Your task to perform on an android device: open app "DoorDash - Dasher" (install if not already installed) Image 0: 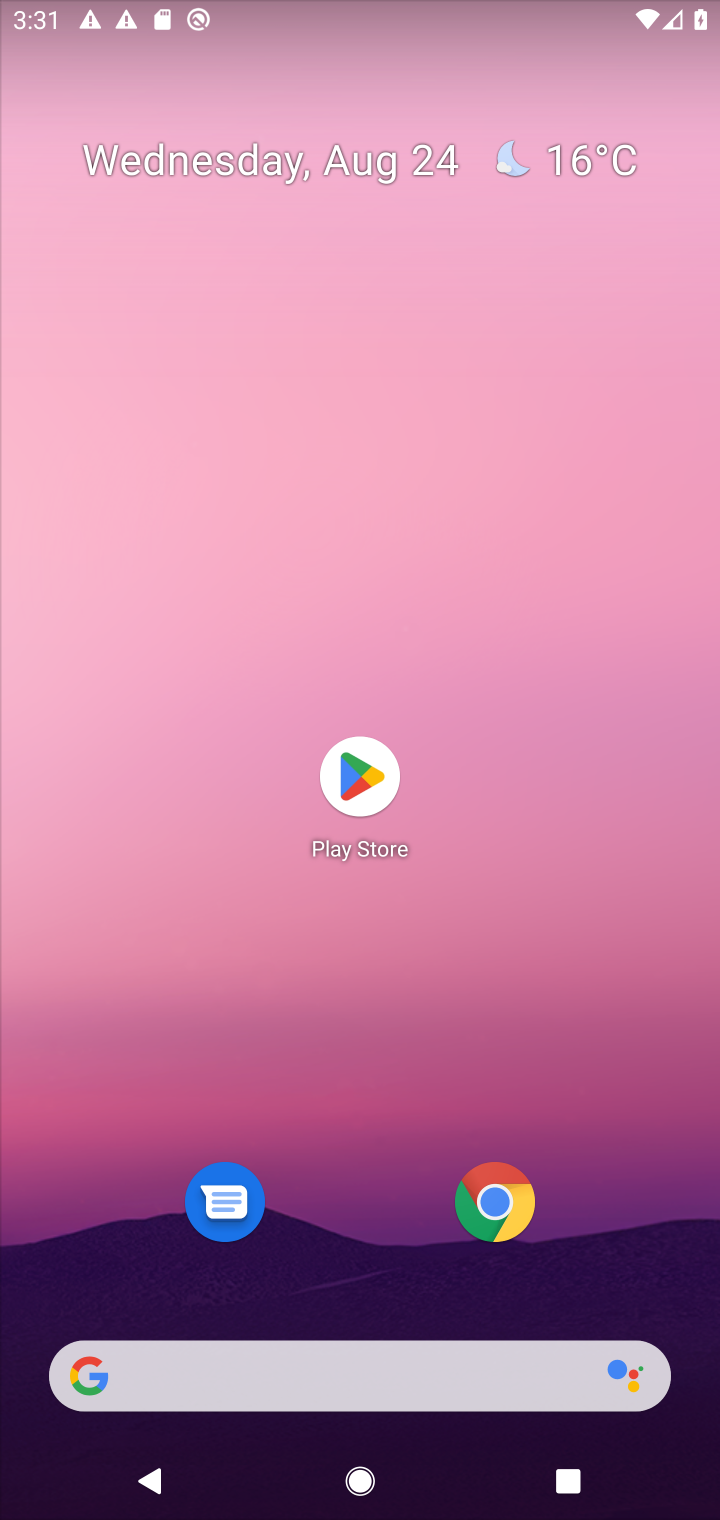
Step 0: click (358, 778)
Your task to perform on an android device: open app "DoorDash - Dasher" (install if not already installed) Image 1: 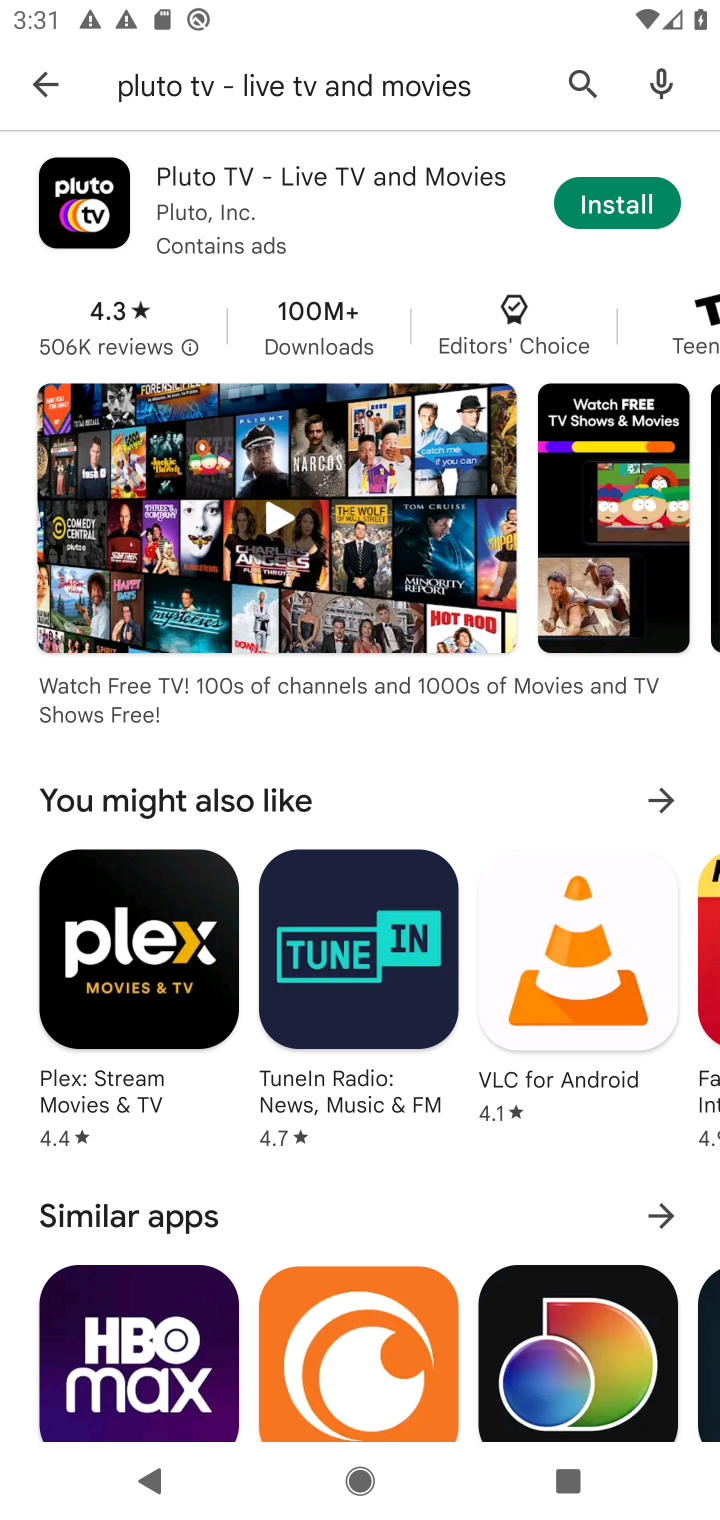
Step 1: click (579, 76)
Your task to perform on an android device: open app "DoorDash - Dasher" (install if not already installed) Image 2: 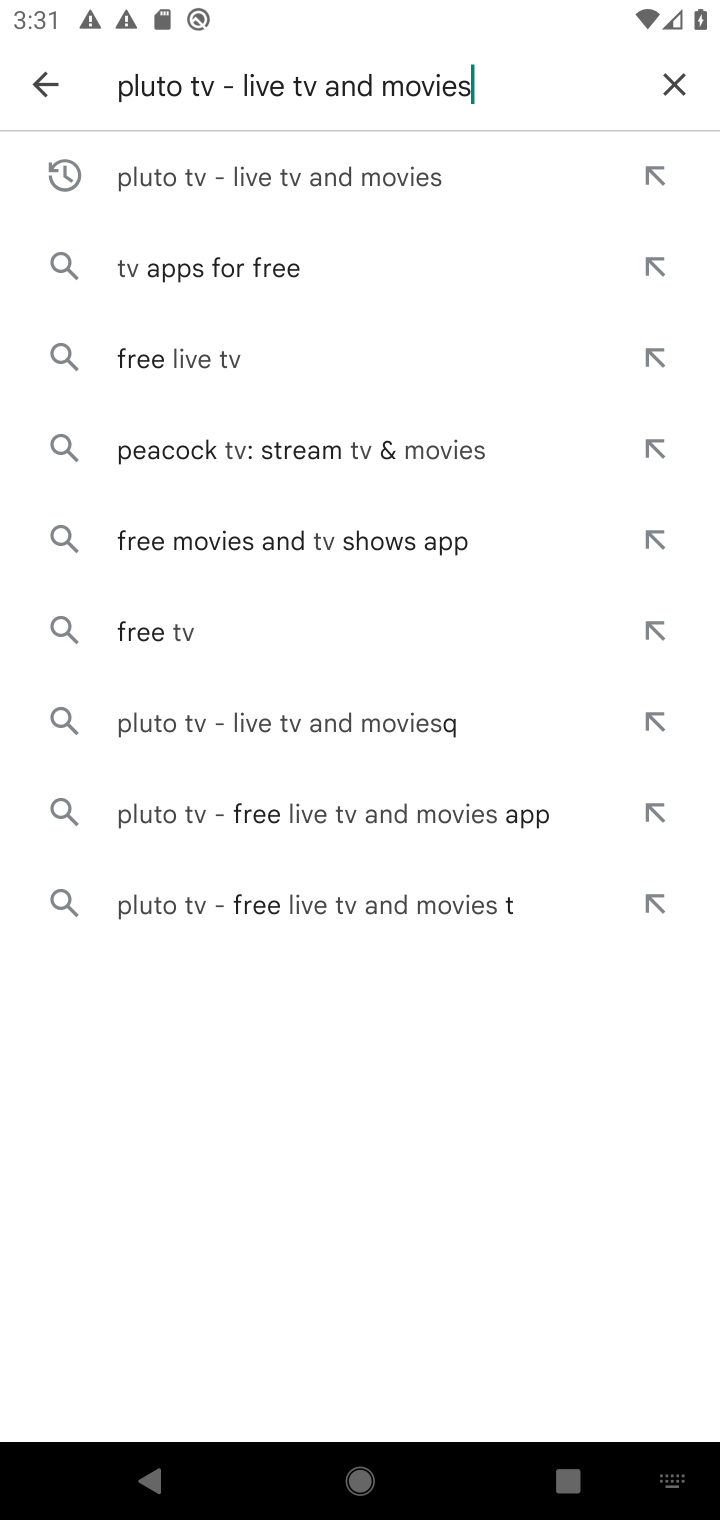
Step 2: click (671, 92)
Your task to perform on an android device: open app "DoorDash - Dasher" (install if not already installed) Image 3: 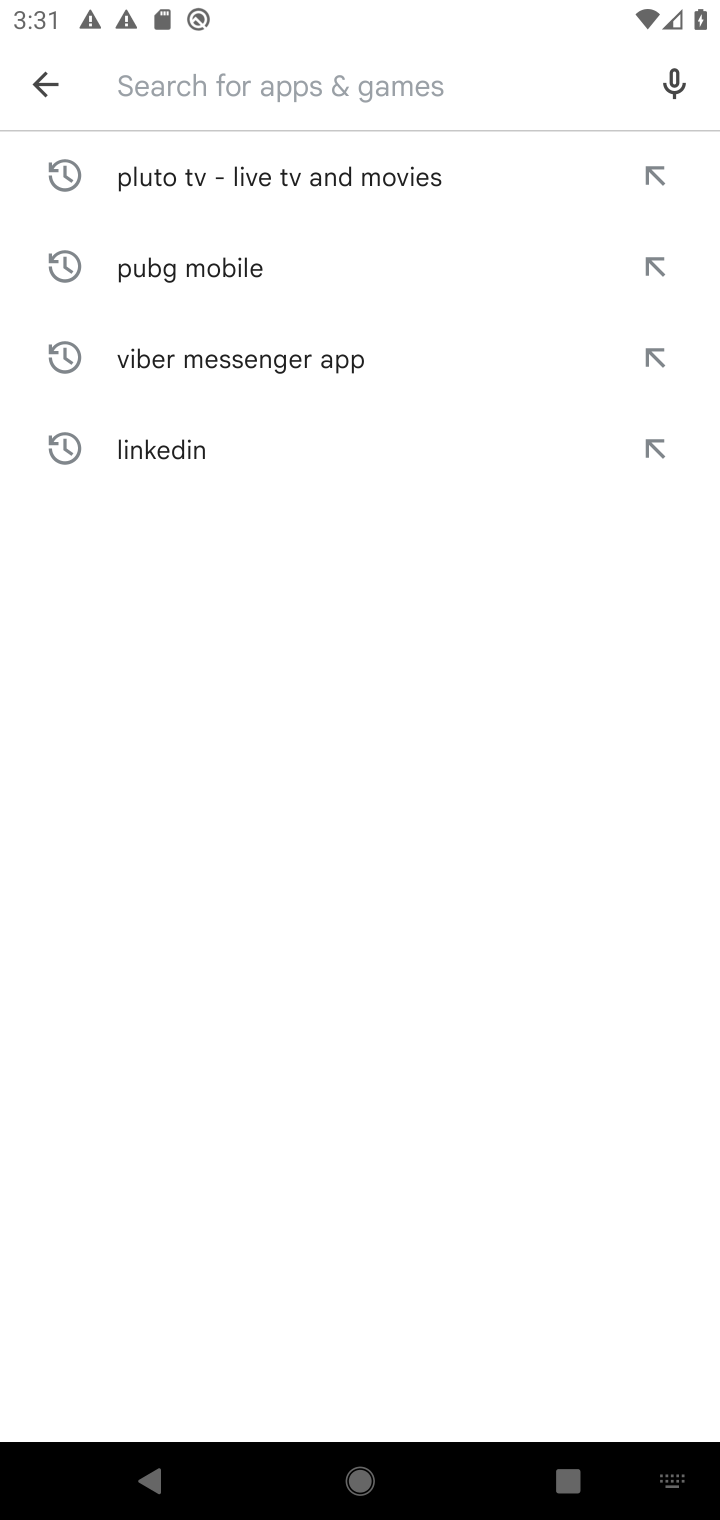
Step 3: type "DoorDash - Dasher"
Your task to perform on an android device: open app "DoorDash - Dasher" (install if not already installed) Image 4: 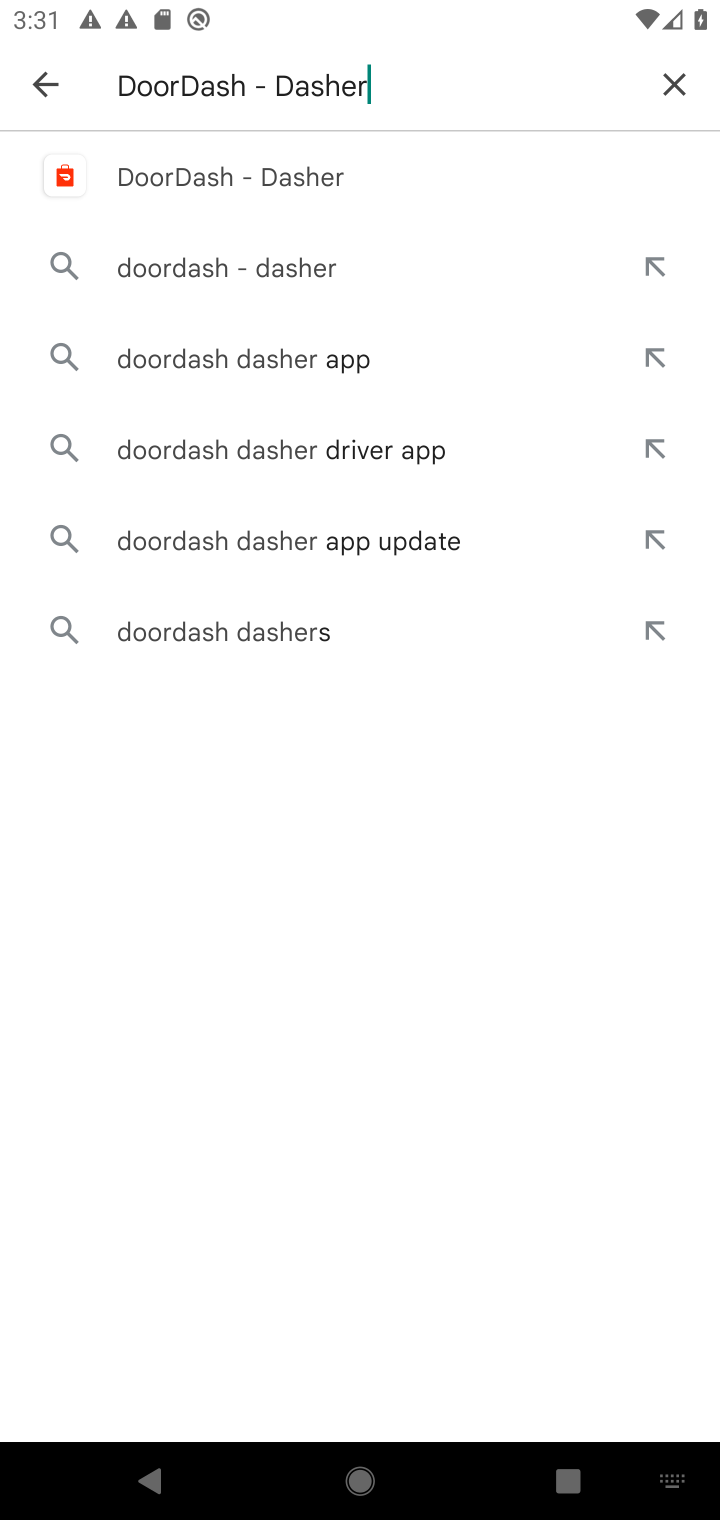
Step 4: click (262, 179)
Your task to perform on an android device: open app "DoorDash - Dasher" (install if not already installed) Image 5: 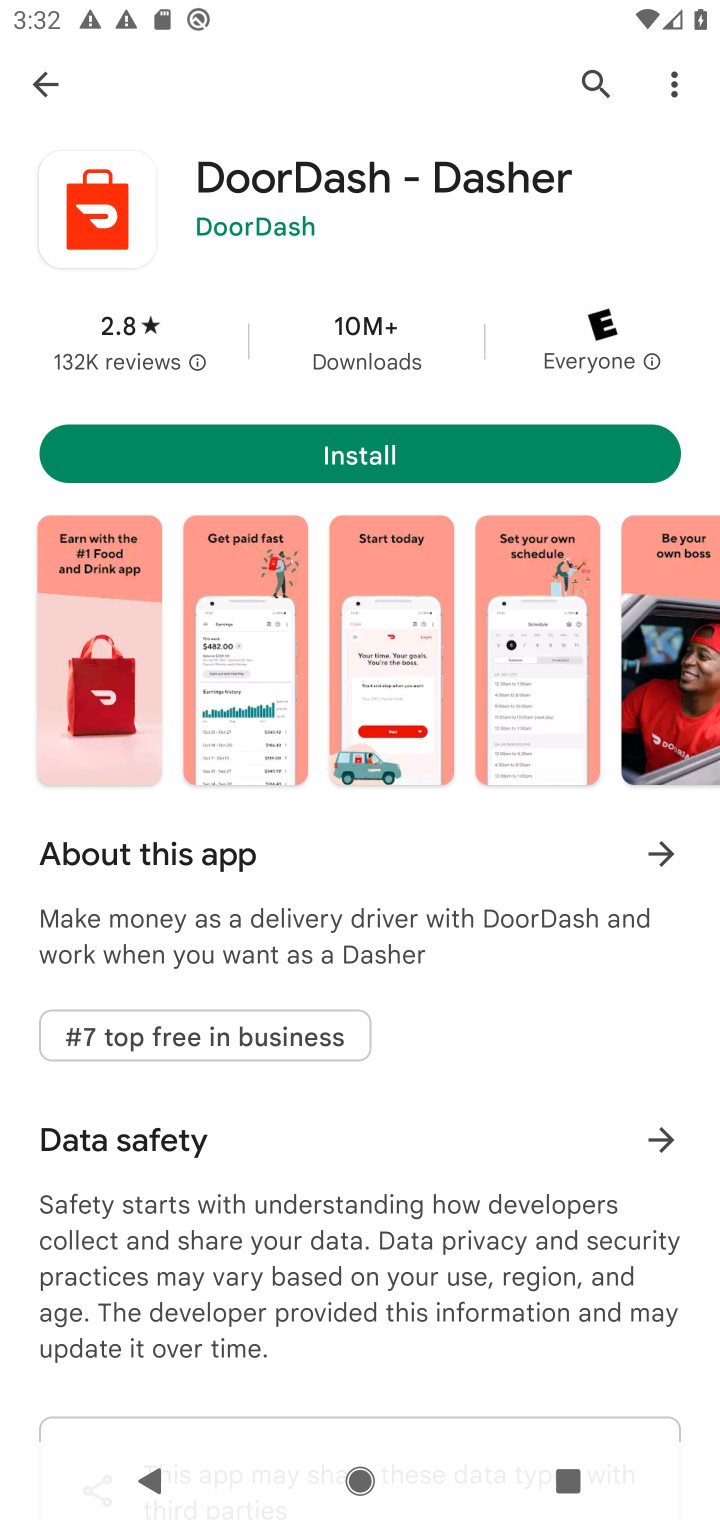
Step 5: click (344, 459)
Your task to perform on an android device: open app "DoorDash - Dasher" (install if not already installed) Image 6: 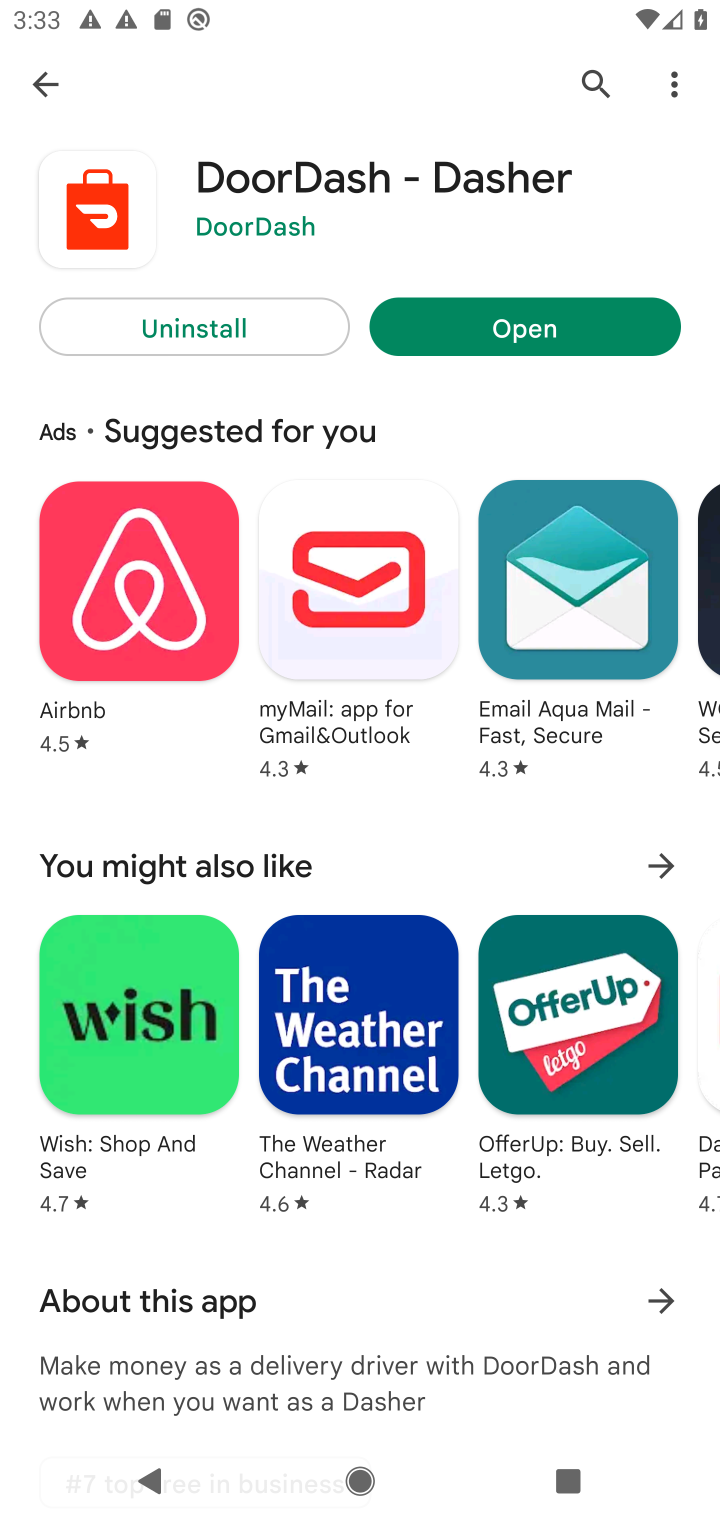
Step 6: click (550, 334)
Your task to perform on an android device: open app "DoorDash - Dasher" (install if not already installed) Image 7: 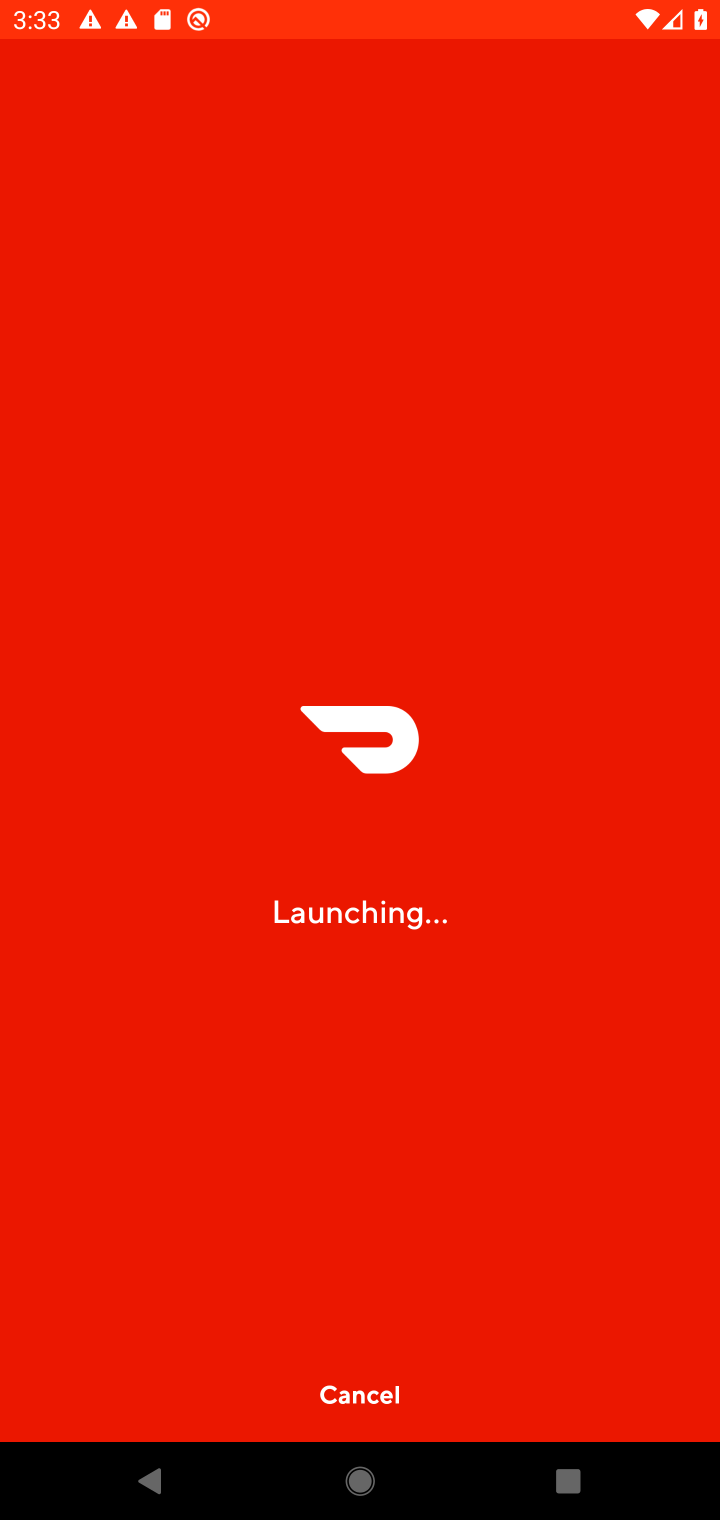
Step 7: task complete